Your task to perform on an android device: change the upload size in google photos Image 0: 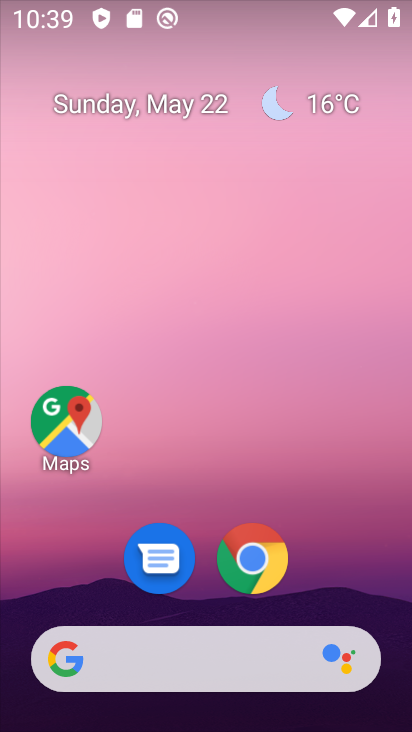
Step 0: drag from (361, 612) to (343, 0)
Your task to perform on an android device: change the upload size in google photos Image 1: 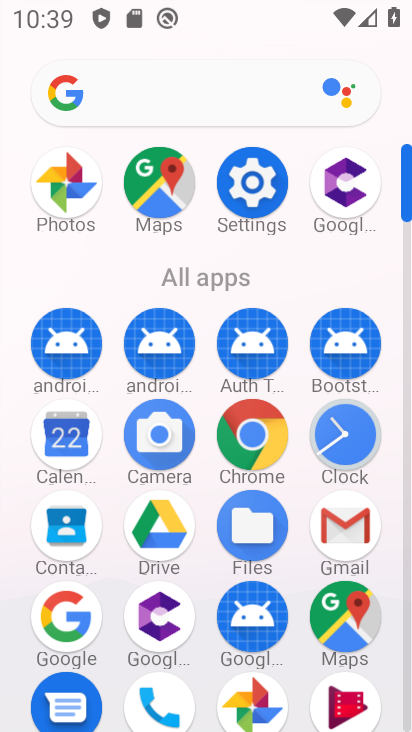
Step 1: click (59, 191)
Your task to perform on an android device: change the upload size in google photos Image 2: 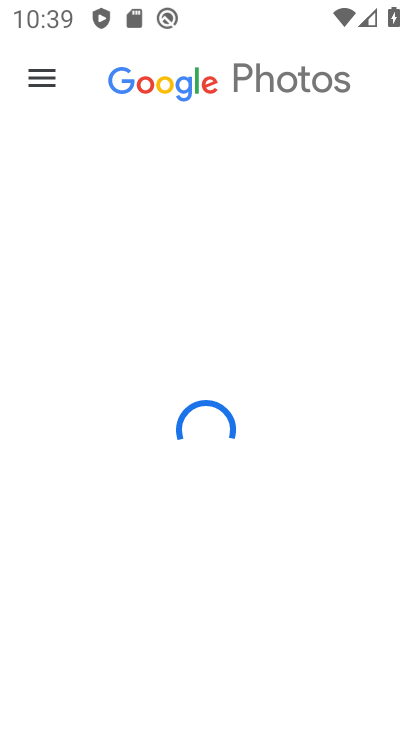
Step 2: click (29, 85)
Your task to perform on an android device: change the upload size in google photos Image 3: 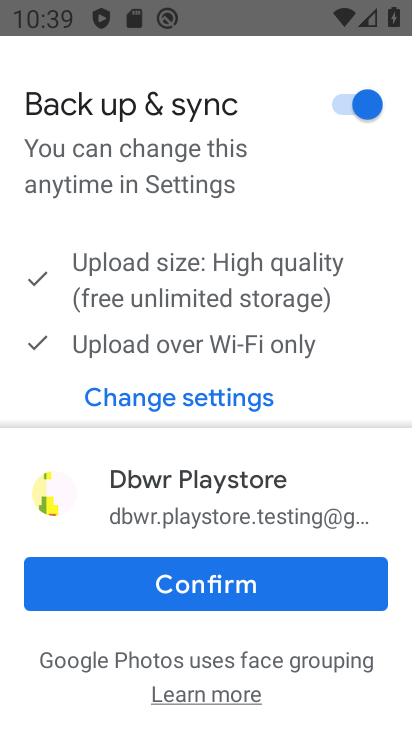
Step 3: click (123, 534)
Your task to perform on an android device: change the upload size in google photos Image 4: 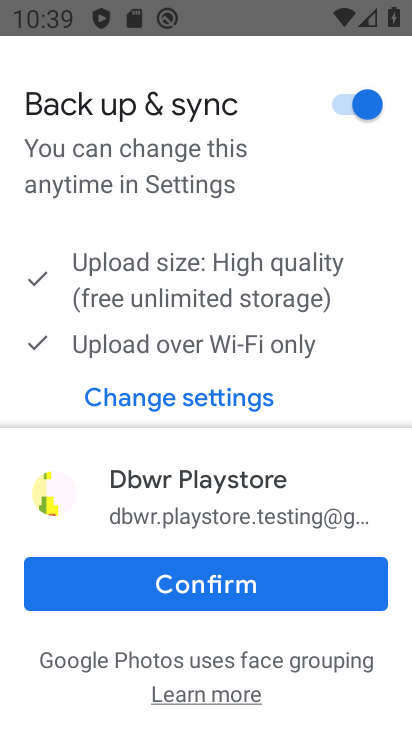
Step 4: click (117, 568)
Your task to perform on an android device: change the upload size in google photos Image 5: 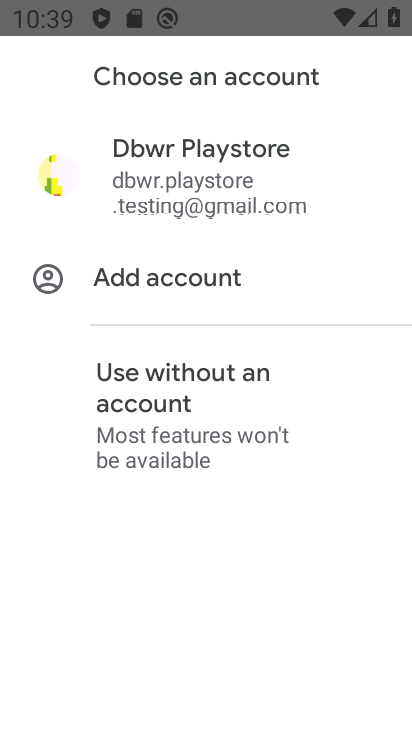
Step 5: press back button
Your task to perform on an android device: change the upload size in google photos Image 6: 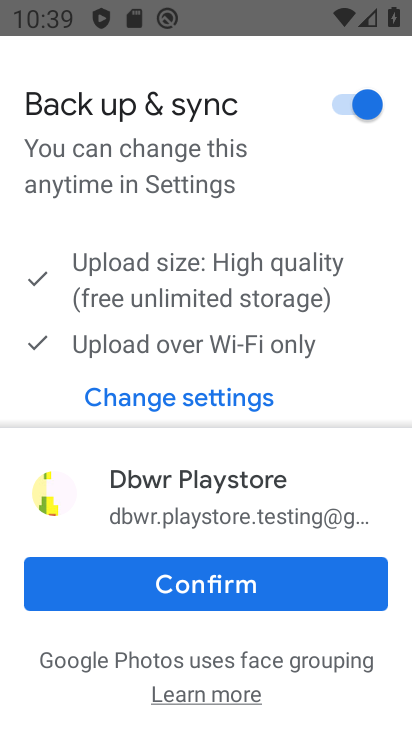
Step 6: click (179, 577)
Your task to perform on an android device: change the upload size in google photos Image 7: 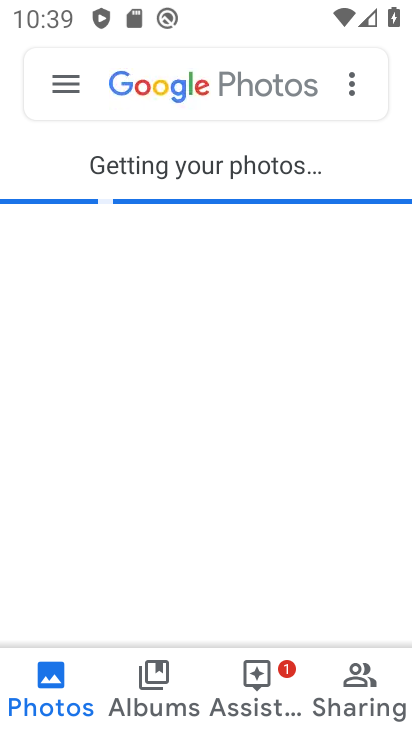
Step 7: click (58, 88)
Your task to perform on an android device: change the upload size in google photos Image 8: 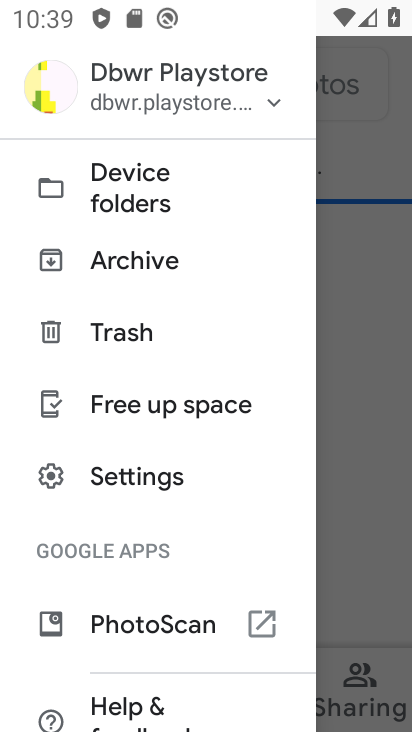
Step 8: click (119, 477)
Your task to perform on an android device: change the upload size in google photos Image 9: 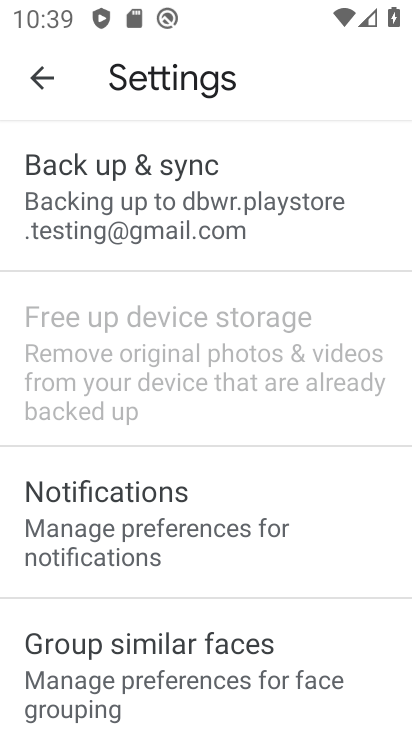
Step 9: click (149, 226)
Your task to perform on an android device: change the upload size in google photos Image 10: 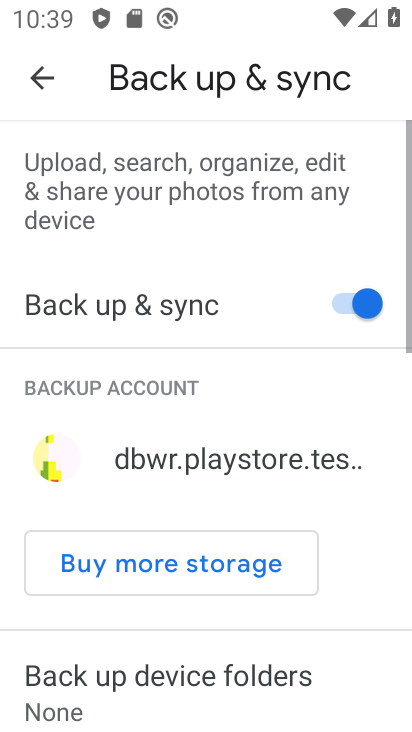
Step 10: drag from (138, 540) to (137, 138)
Your task to perform on an android device: change the upload size in google photos Image 11: 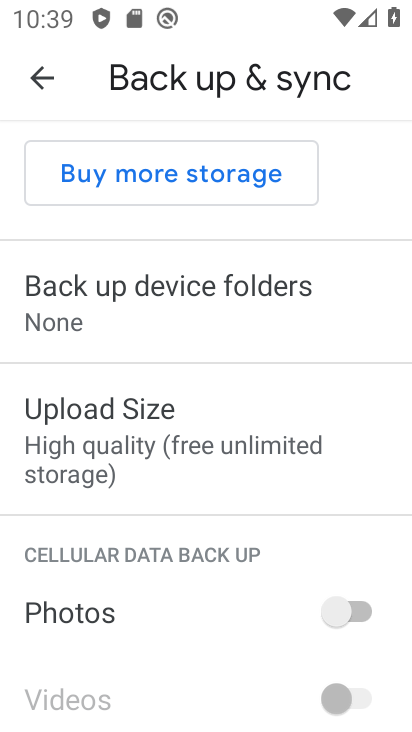
Step 11: click (87, 424)
Your task to perform on an android device: change the upload size in google photos Image 12: 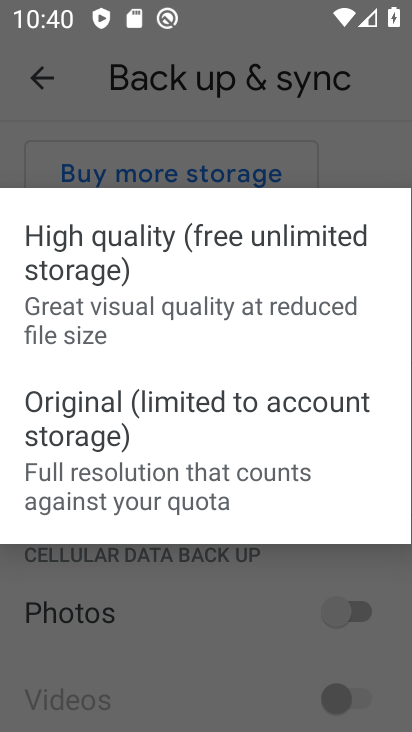
Step 12: click (85, 429)
Your task to perform on an android device: change the upload size in google photos Image 13: 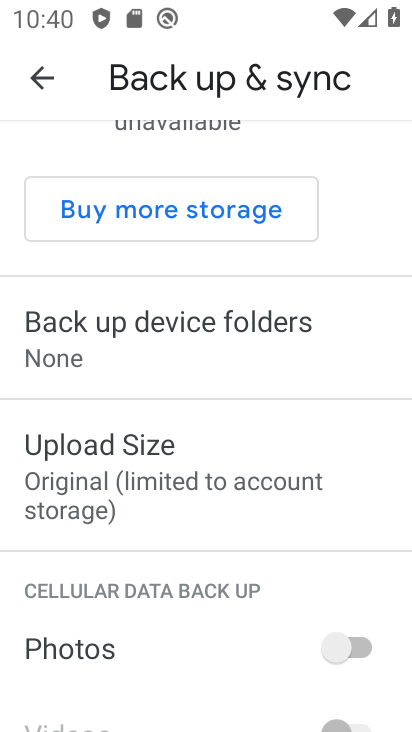
Step 13: task complete